Your task to perform on an android device: Open the map Image 0: 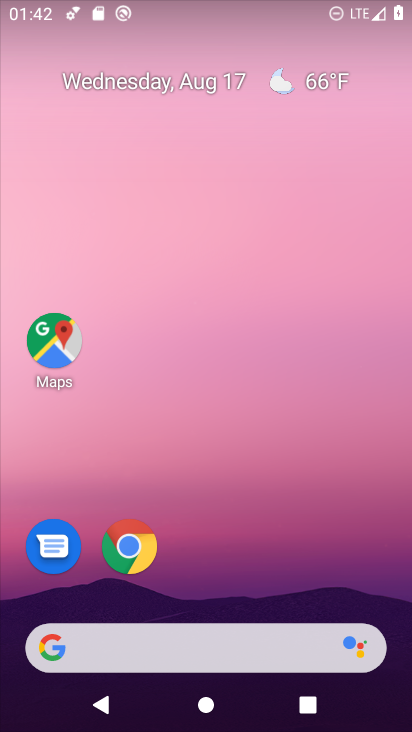
Step 0: click (54, 339)
Your task to perform on an android device: Open the map Image 1: 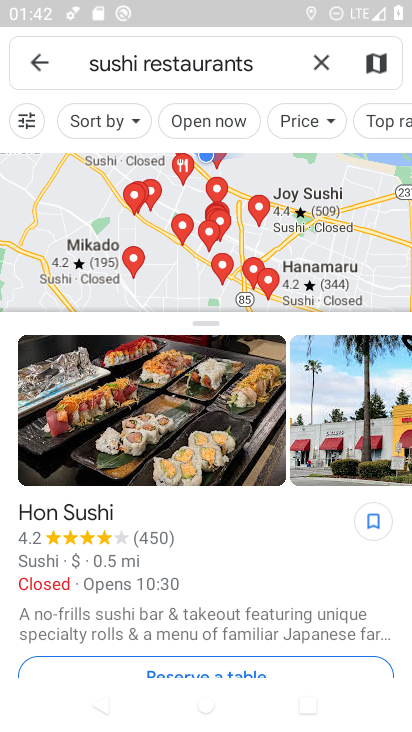
Step 1: click (36, 57)
Your task to perform on an android device: Open the map Image 2: 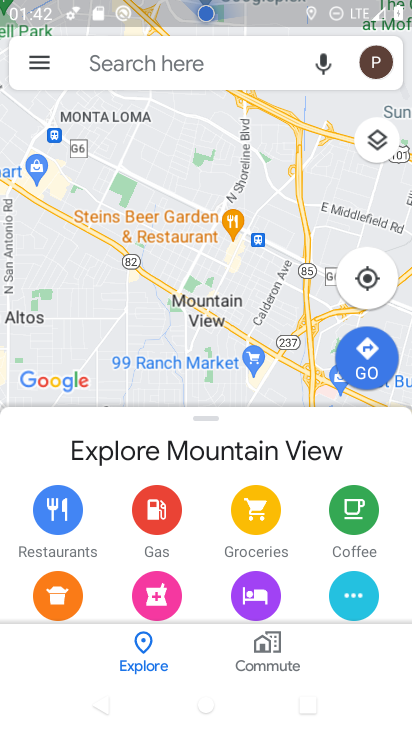
Step 2: task complete